Your task to perform on an android device: Toggle the flashlight Image 0: 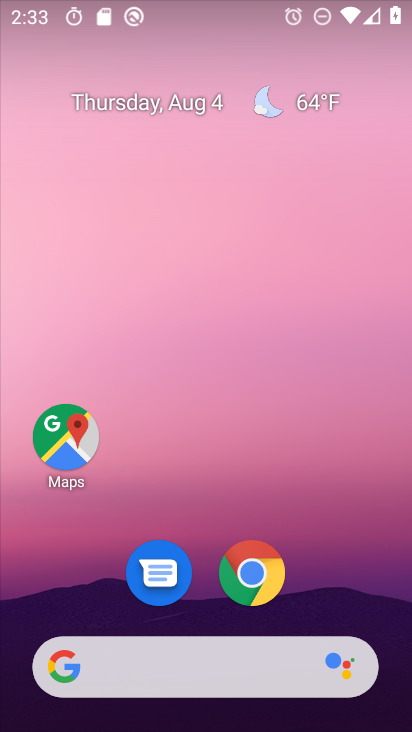
Step 0: drag from (322, 552) to (349, 170)
Your task to perform on an android device: Toggle the flashlight Image 1: 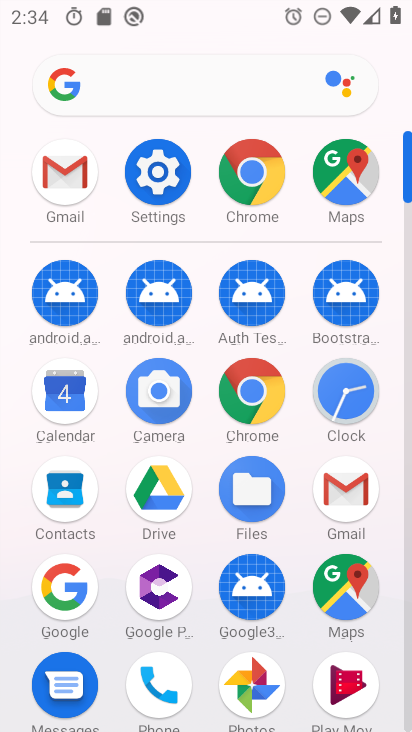
Step 1: click (163, 175)
Your task to perform on an android device: Toggle the flashlight Image 2: 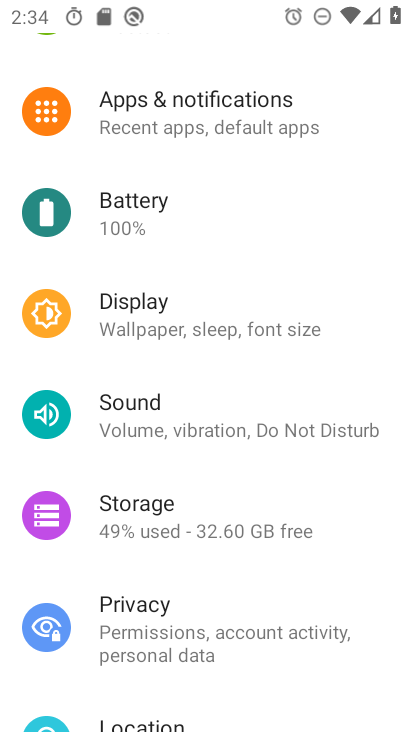
Step 2: click (202, 316)
Your task to perform on an android device: Toggle the flashlight Image 3: 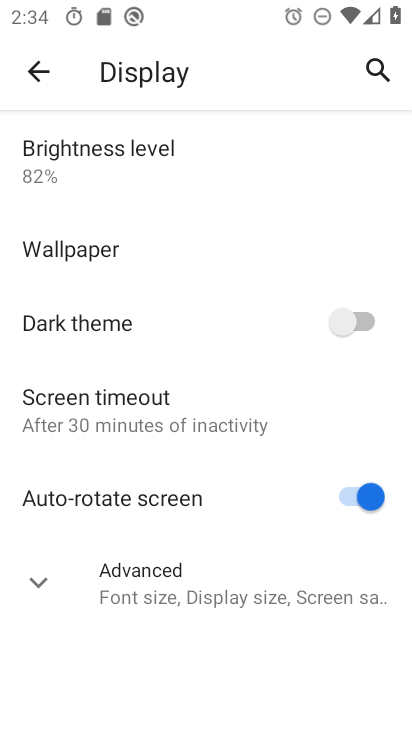
Step 3: click (126, 419)
Your task to perform on an android device: Toggle the flashlight Image 4: 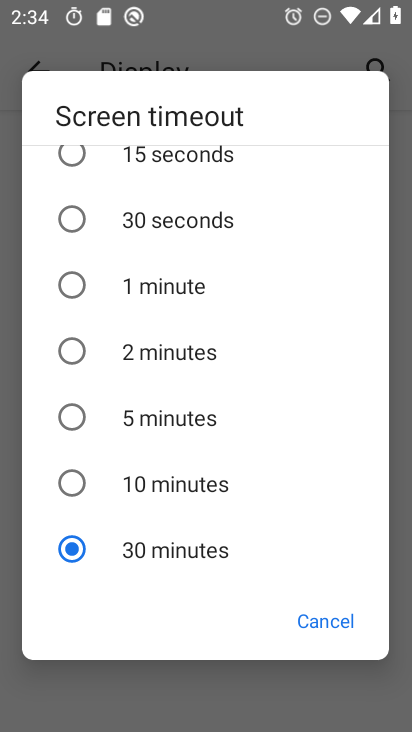
Step 4: task complete